Your task to perform on an android device: see creations saved in the google photos Image 0: 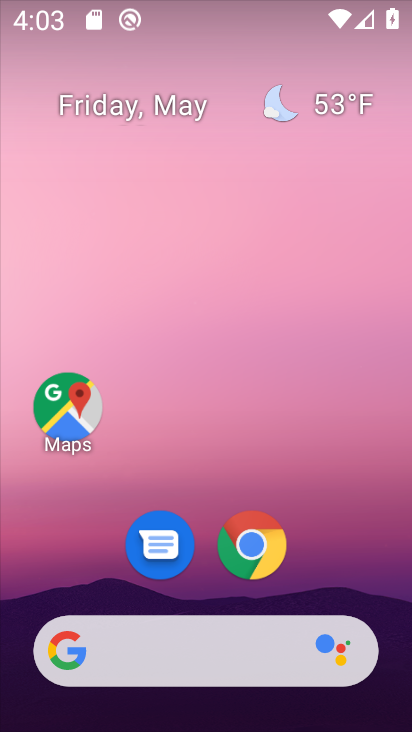
Step 0: drag from (364, 564) to (354, 220)
Your task to perform on an android device: see creations saved in the google photos Image 1: 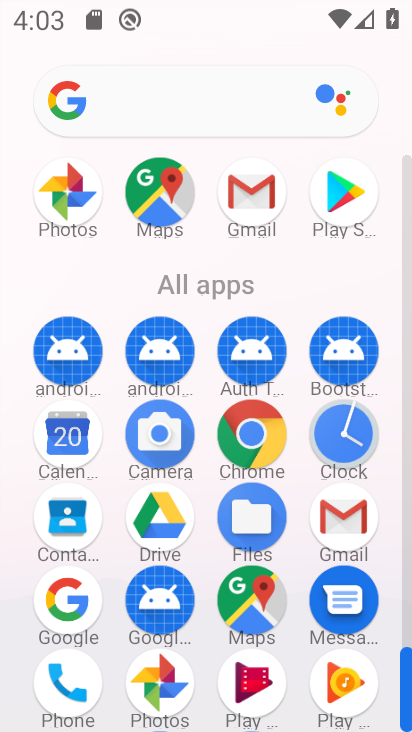
Step 1: click (163, 688)
Your task to perform on an android device: see creations saved in the google photos Image 2: 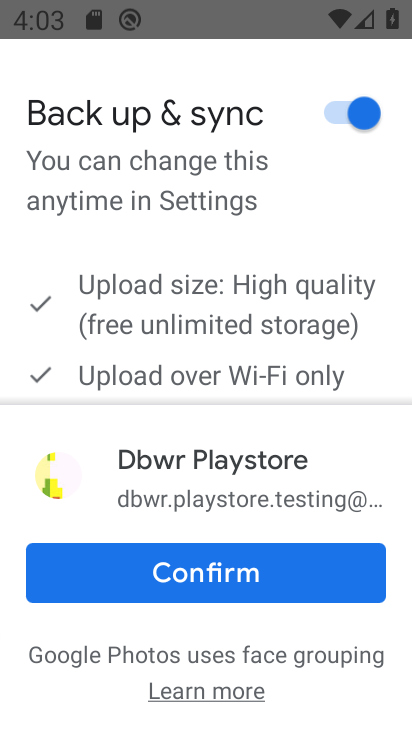
Step 2: click (378, 570)
Your task to perform on an android device: see creations saved in the google photos Image 3: 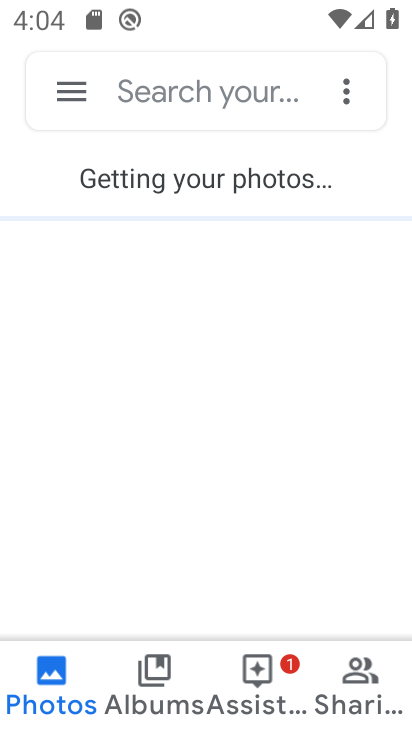
Step 3: click (189, 90)
Your task to perform on an android device: see creations saved in the google photos Image 4: 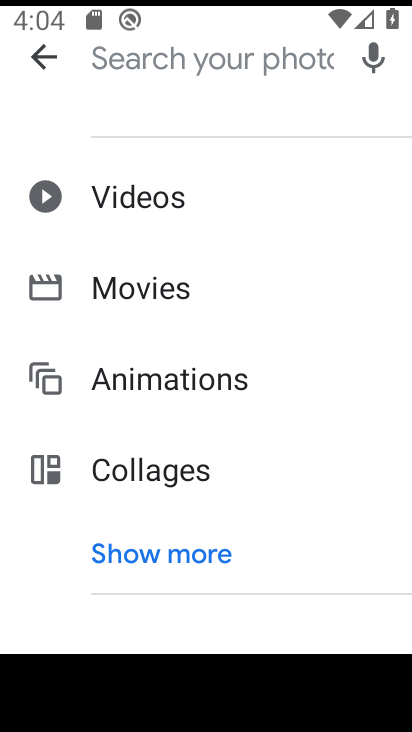
Step 4: click (195, 544)
Your task to perform on an android device: see creations saved in the google photos Image 5: 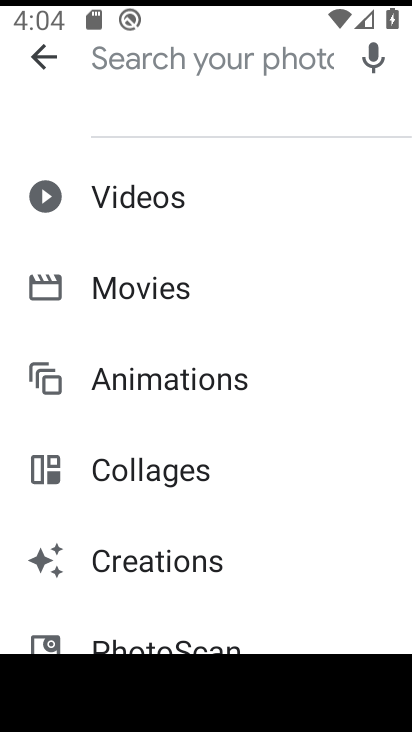
Step 5: click (176, 566)
Your task to perform on an android device: see creations saved in the google photos Image 6: 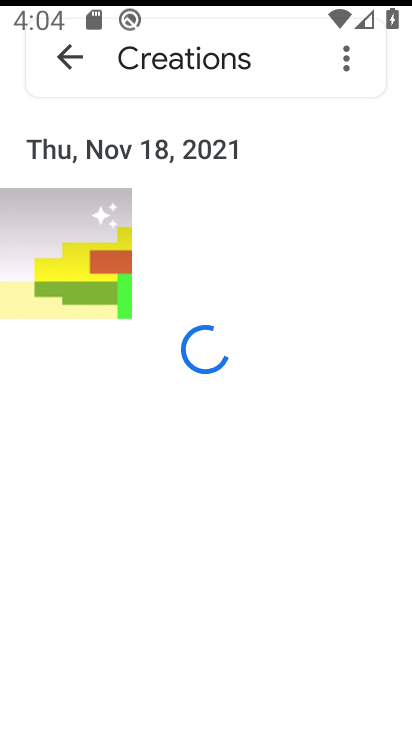
Step 6: task complete